Your task to perform on an android device: remove spam from my inbox in the gmail app Image 0: 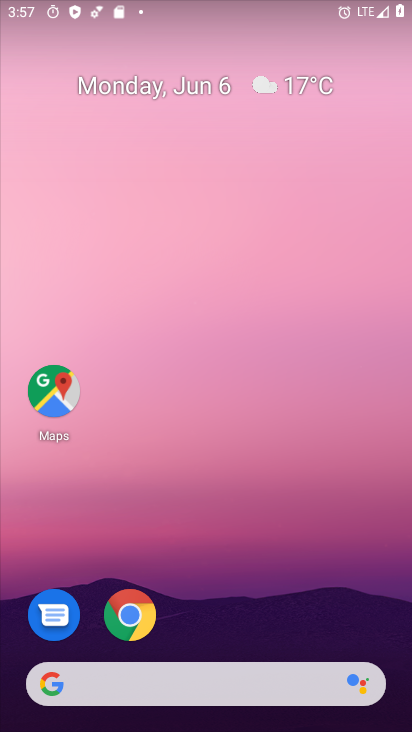
Step 0: drag from (285, 546) to (238, 54)
Your task to perform on an android device: remove spam from my inbox in the gmail app Image 1: 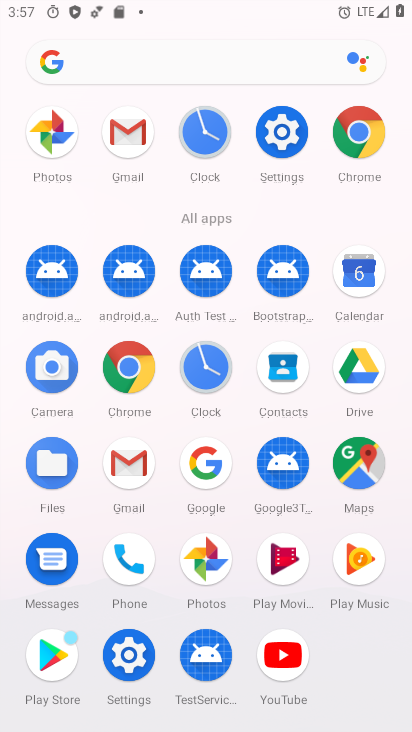
Step 1: drag from (7, 550) to (29, 178)
Your task to perform on an android device: remove spam from my inbox in the gmail app Image 2: 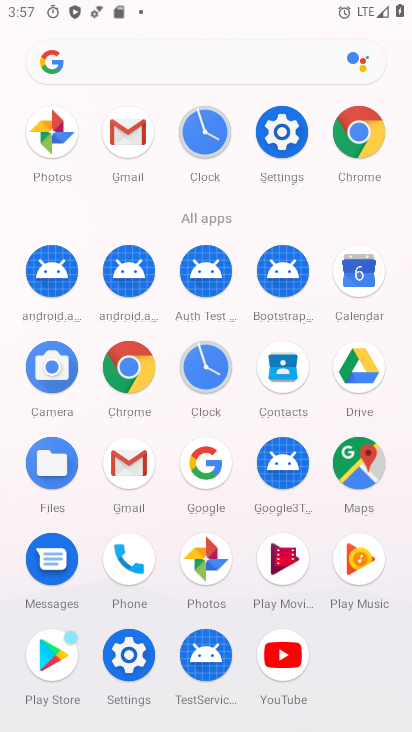
Step 2: click (125, 452)
Your task to perform on an android device: remove spam from my inbox in the gmail app Image 3: 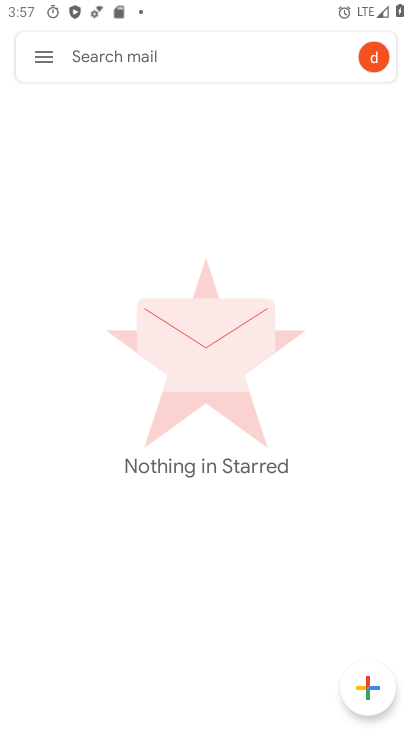
Step 3: click (51, 52)
Your task to perform on an android device: remove spam from my inbox in the gmail app Image 4: 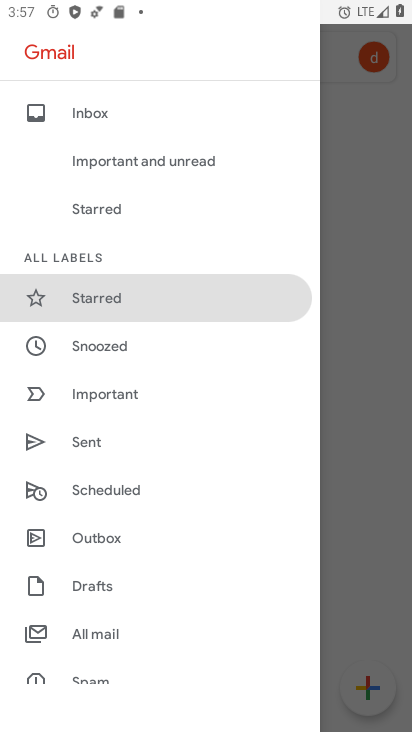
Step 4: drag from (145, 628) to (212, 152)
Your task to perform on an android device: remove spam from my inbox in the gmail app Image 5: 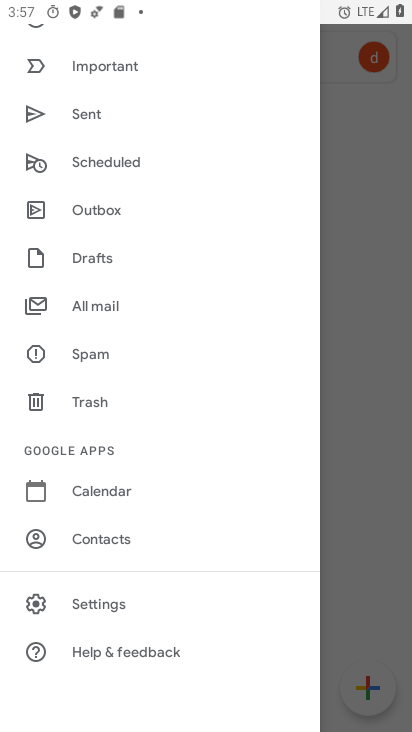
Step 5: click (96, 352)
Your task to perform on an android device: remove spam from my inbox in the gmail app Image 6: 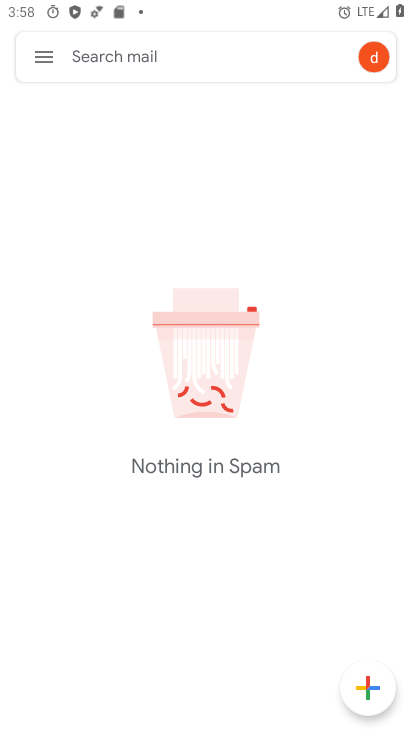
Step 6: task complete